Your task to perform on an android device: Show me popular games on the Play Store Image 0: 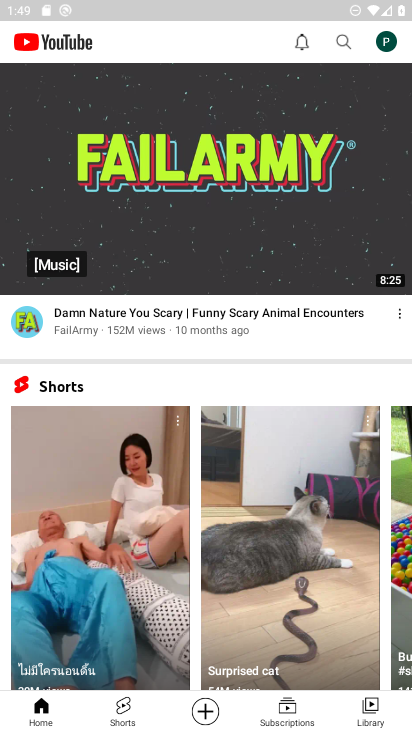
Step 0: press home button
Your task to perform on an android device: Show me popular games on the Play Store Image 1: 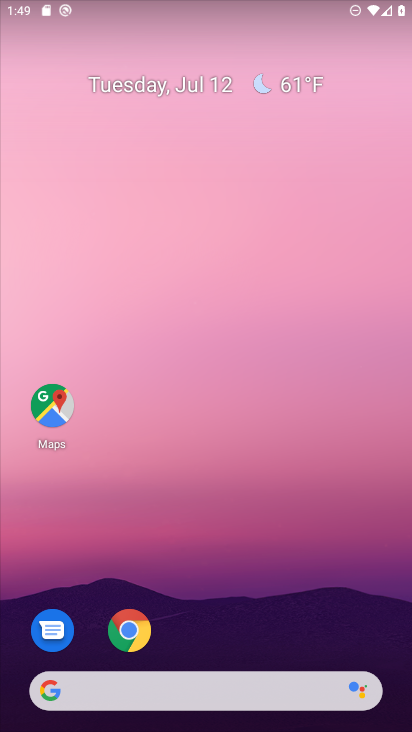
Step 1: drag from (263, 593) to (263, 101)
Your task to perform on an android device: Show me popular games on the Play Store Image 2: 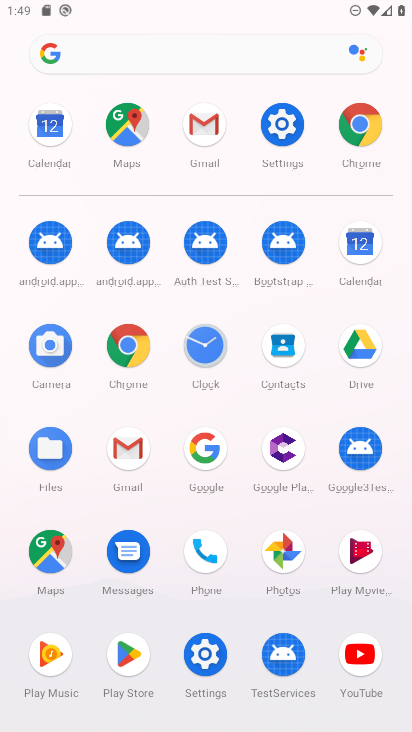
Step 2: click (122, 649)
Your task to perform on an android device: Show me popular games on the Play Store Image 3: 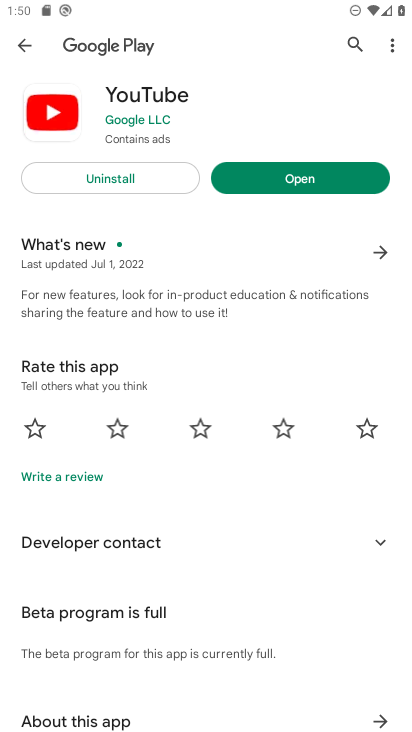
Step 3: click (20, 39)
Your task to perform on an android device: Show me popular games on the Play Store Image 4: 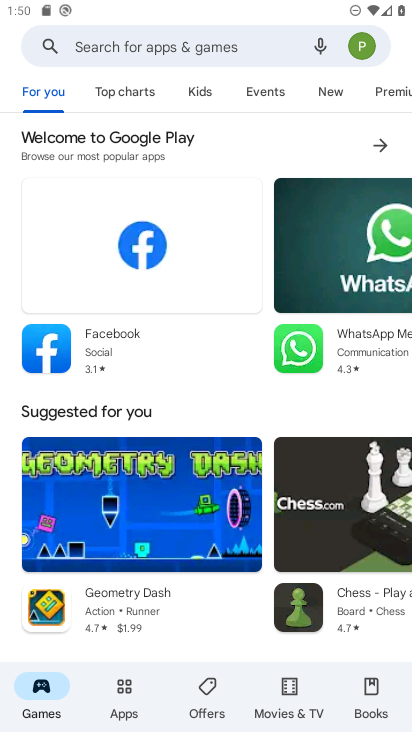
Step 4: click (137, 91)
Your task to perform on an android device: Show me popular games on the Play Store Image 5: 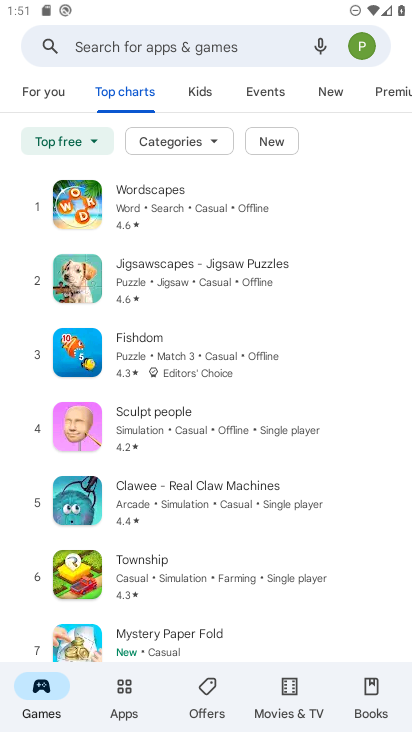
Step 5: task complete